Your task to perform on an android device: Go to Google Image 0: 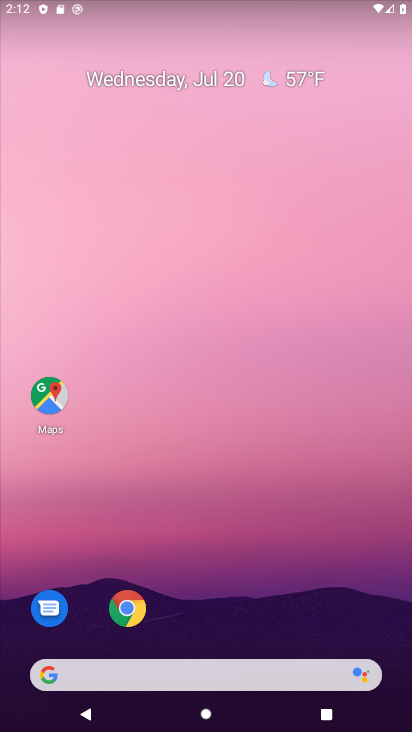
Step 0: press home button
Your task to perform on an android device: Go to Google Image 1: 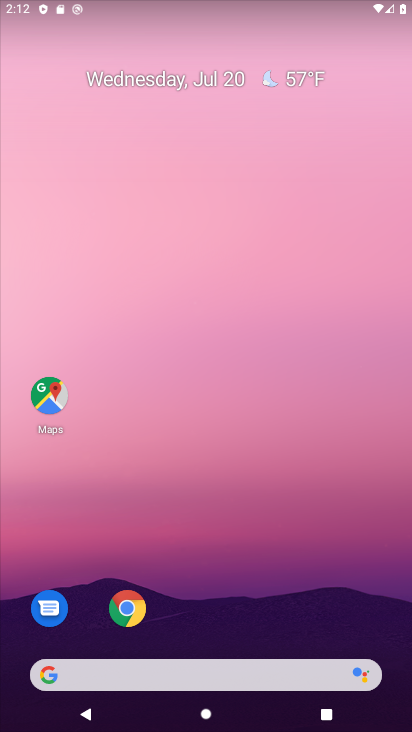
Step 1: drag from (225, 626) to (216, 2)
Your task to perform on an android device: Go to Google Image 2: 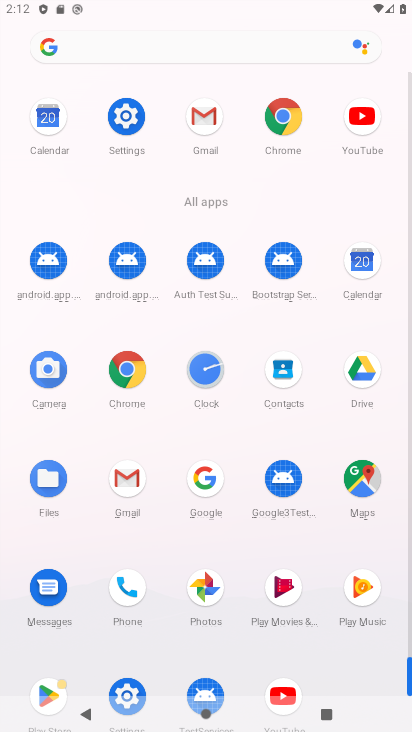
Step 2: click (209, 468)
Your task to perform on an android device: Go to Google Image 3: 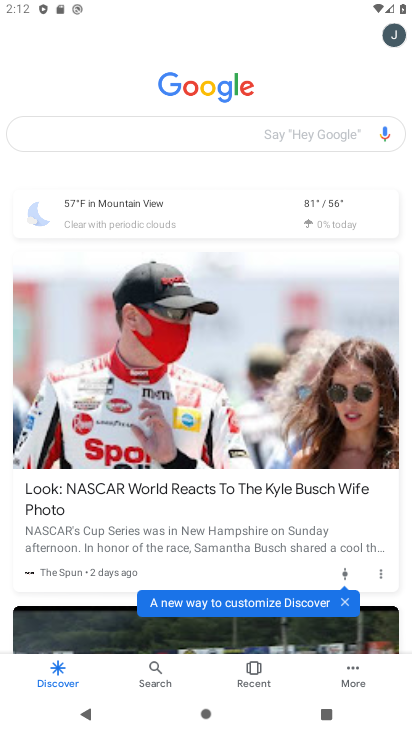
Step 3: click (146, 670)
Your task to perform on an android device: Go to Google Image 4: 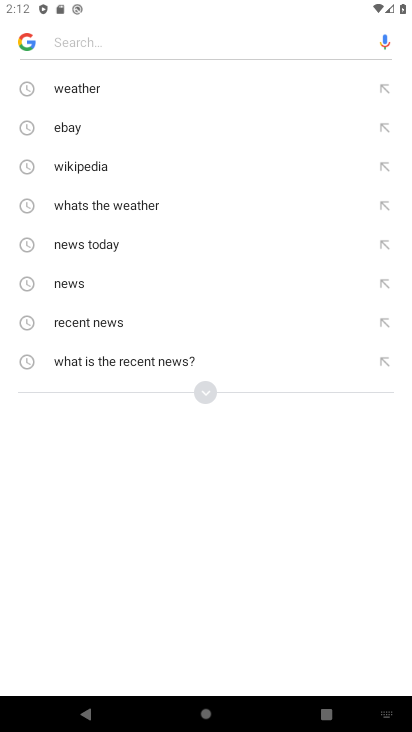
Step 4: task complete